Your task to perform on an android device: set an alarm Image 0: 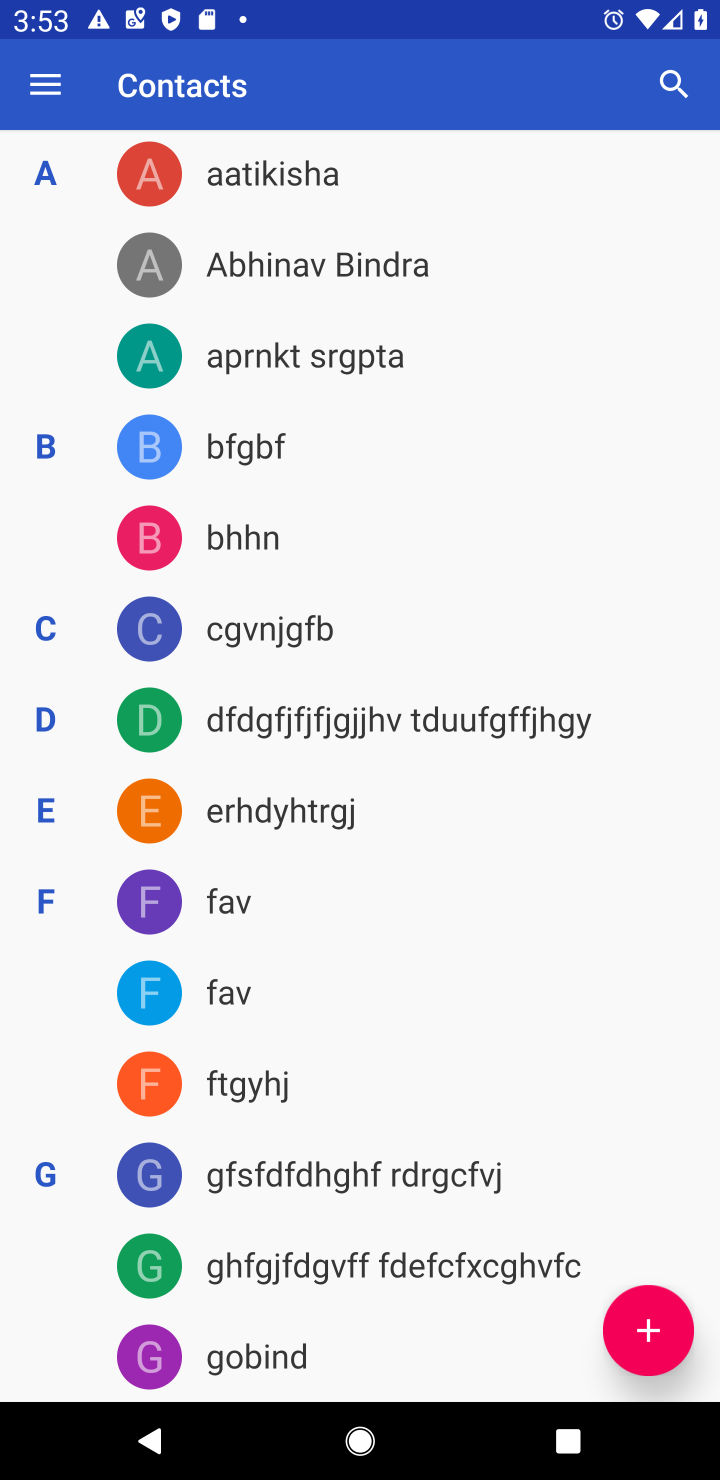
Step 0: press home button
Your task to perform on an android device: set an alarm Image 1: 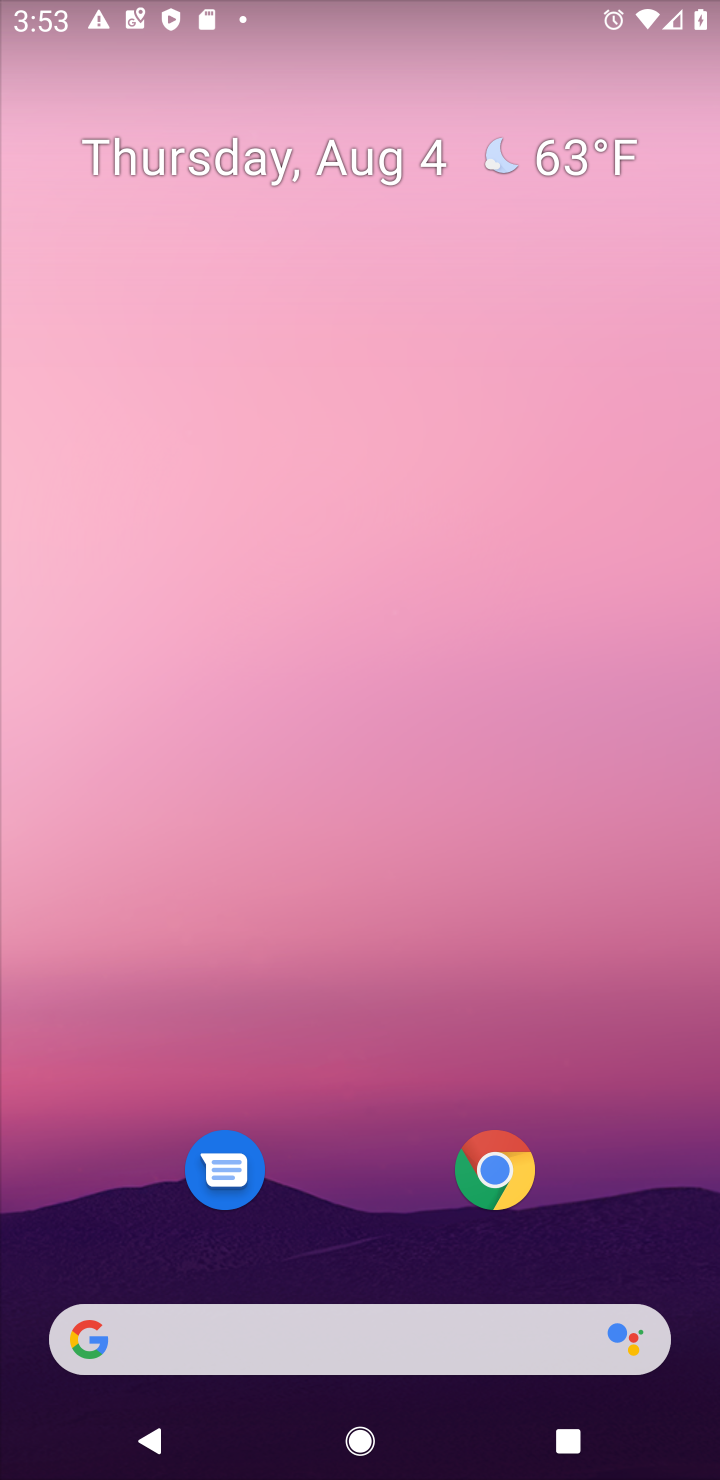
Step 1: drag from (621, 1140) to (566, 426)
Your task to perform on an android device: set an alarm Image 2: 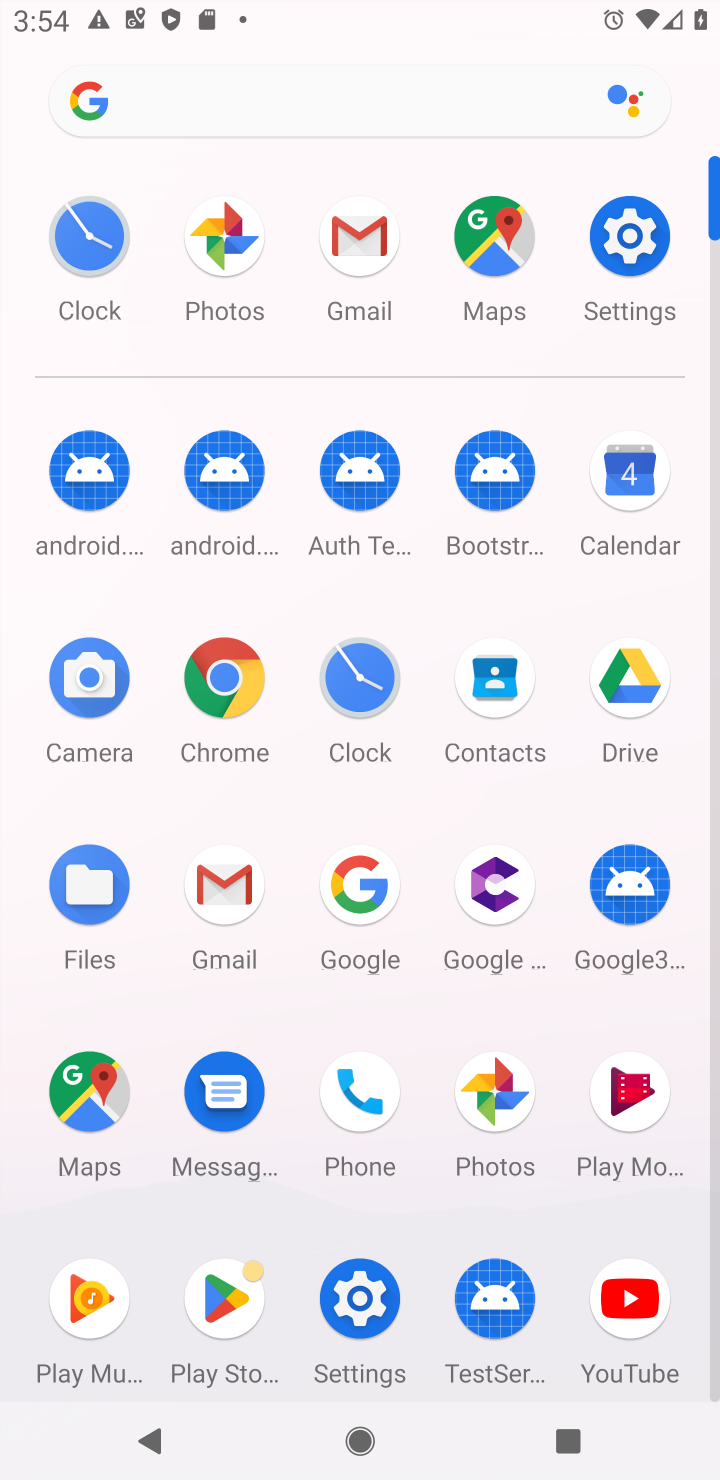
Step 2: click (363, 683)
Your task to perform on an android device: set an alarm Image 3: 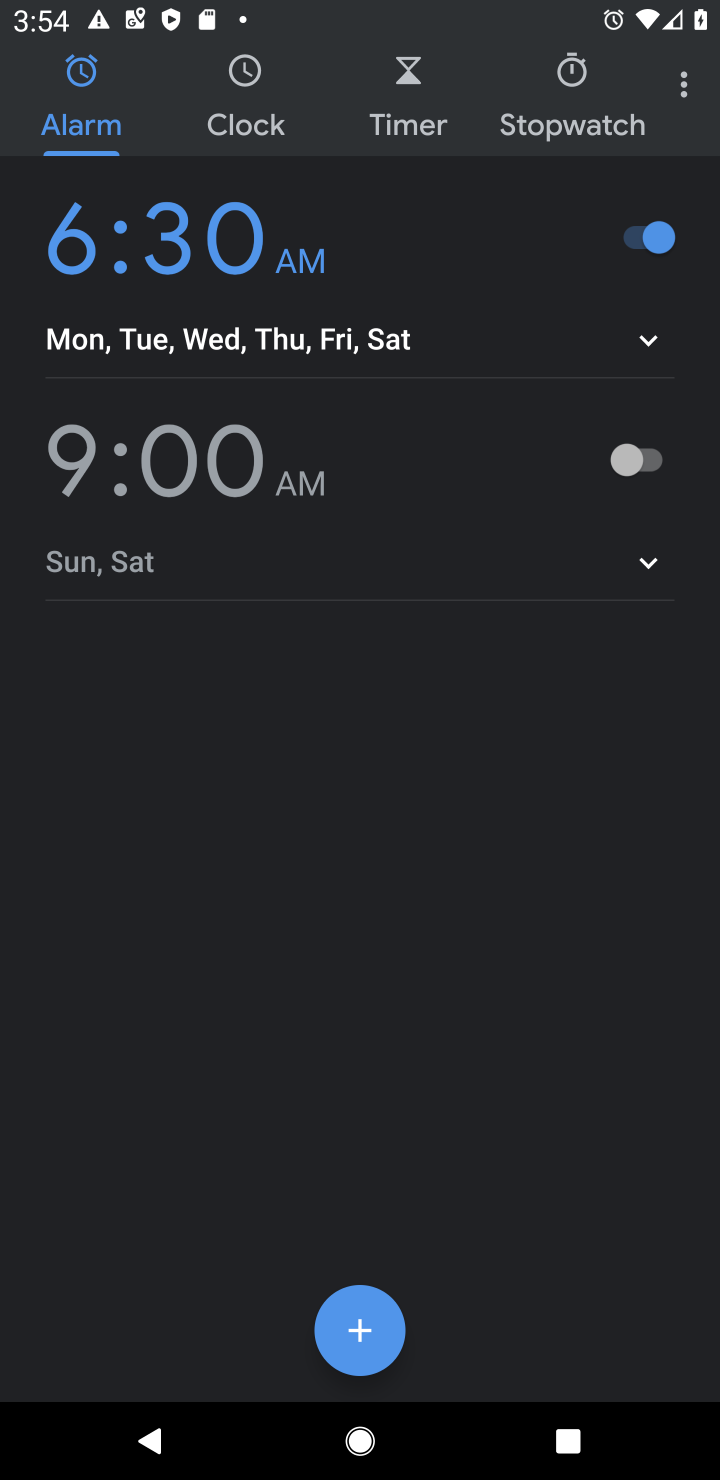
Step 3: click (141, 467)
Your task to perform on an android device: set an alarm Image 4: 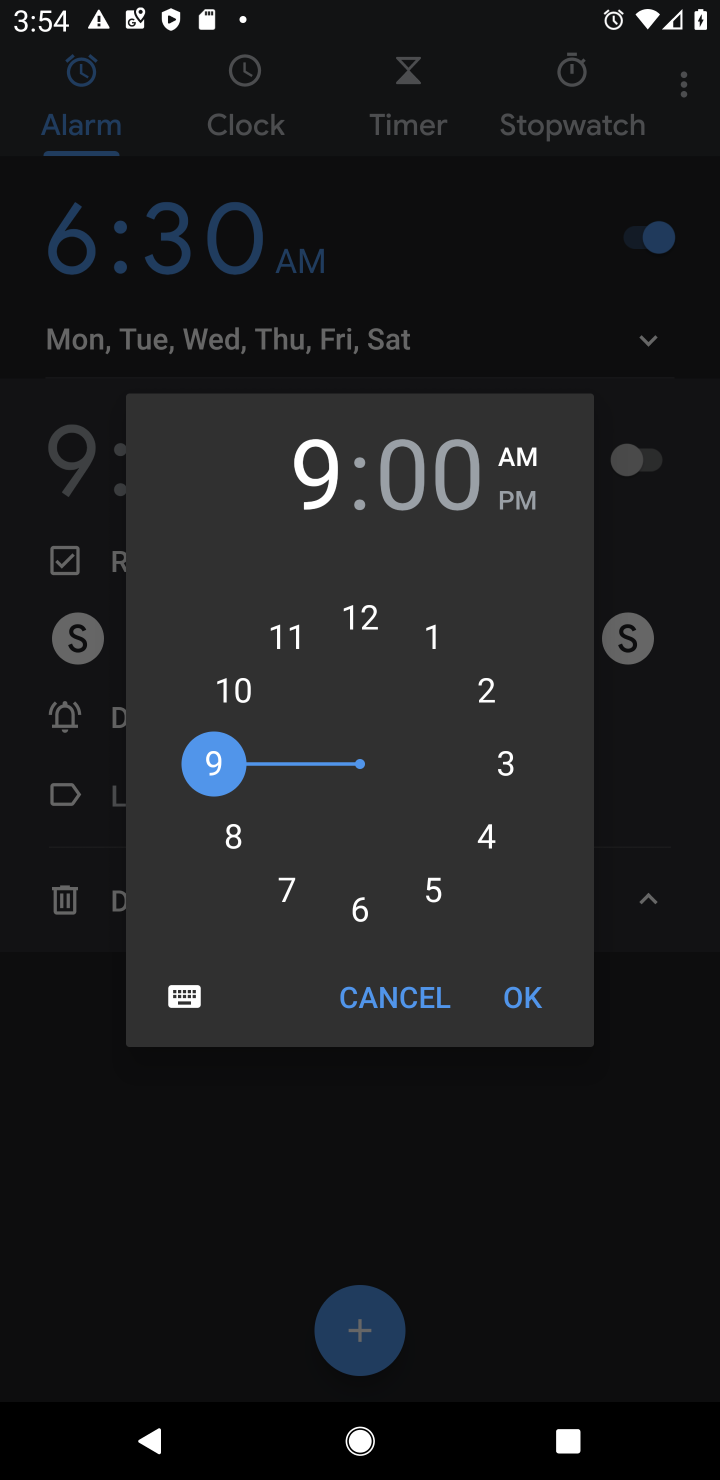
Step 4: click (359, 919)
Your task to perform on an android device: set an alarm Image 5: 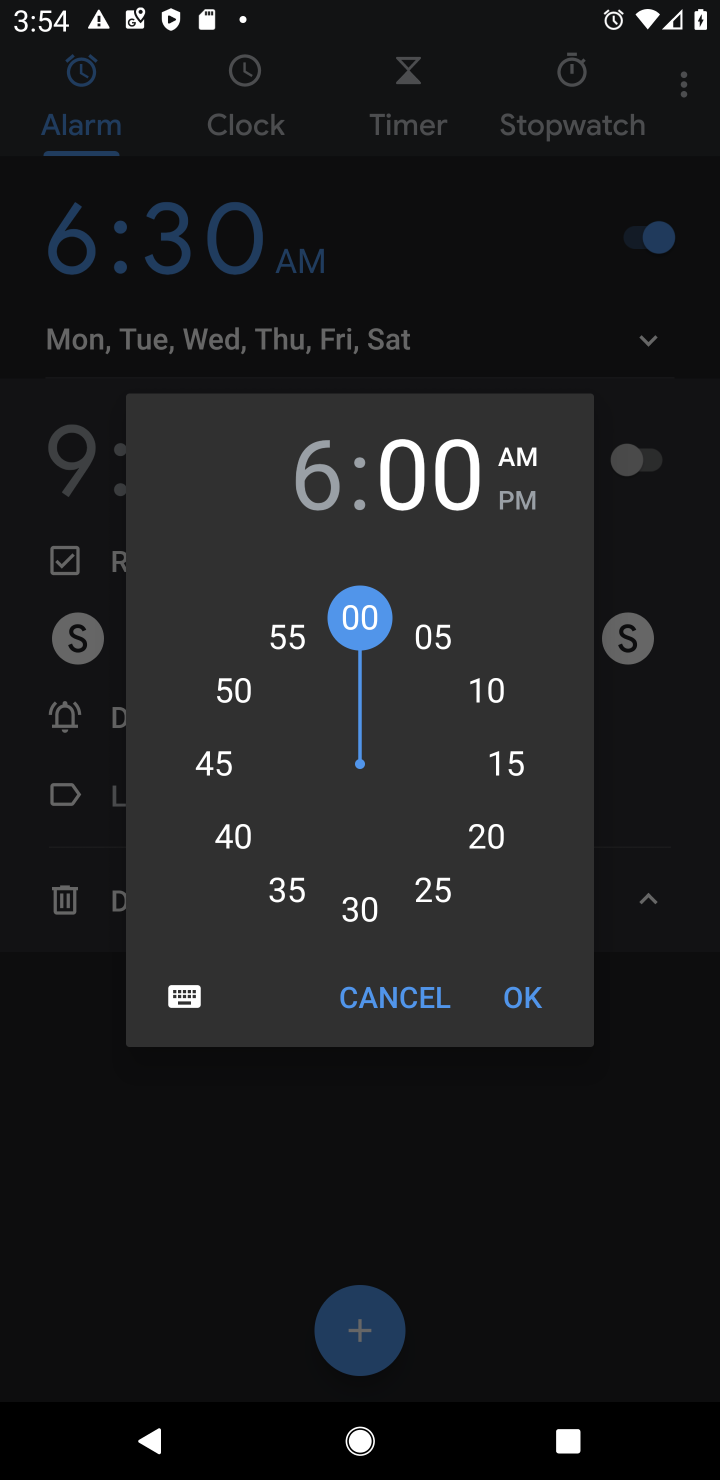
Step 5: click (521, 992)
Your task to perform on an android device: set an alarm Image 6: 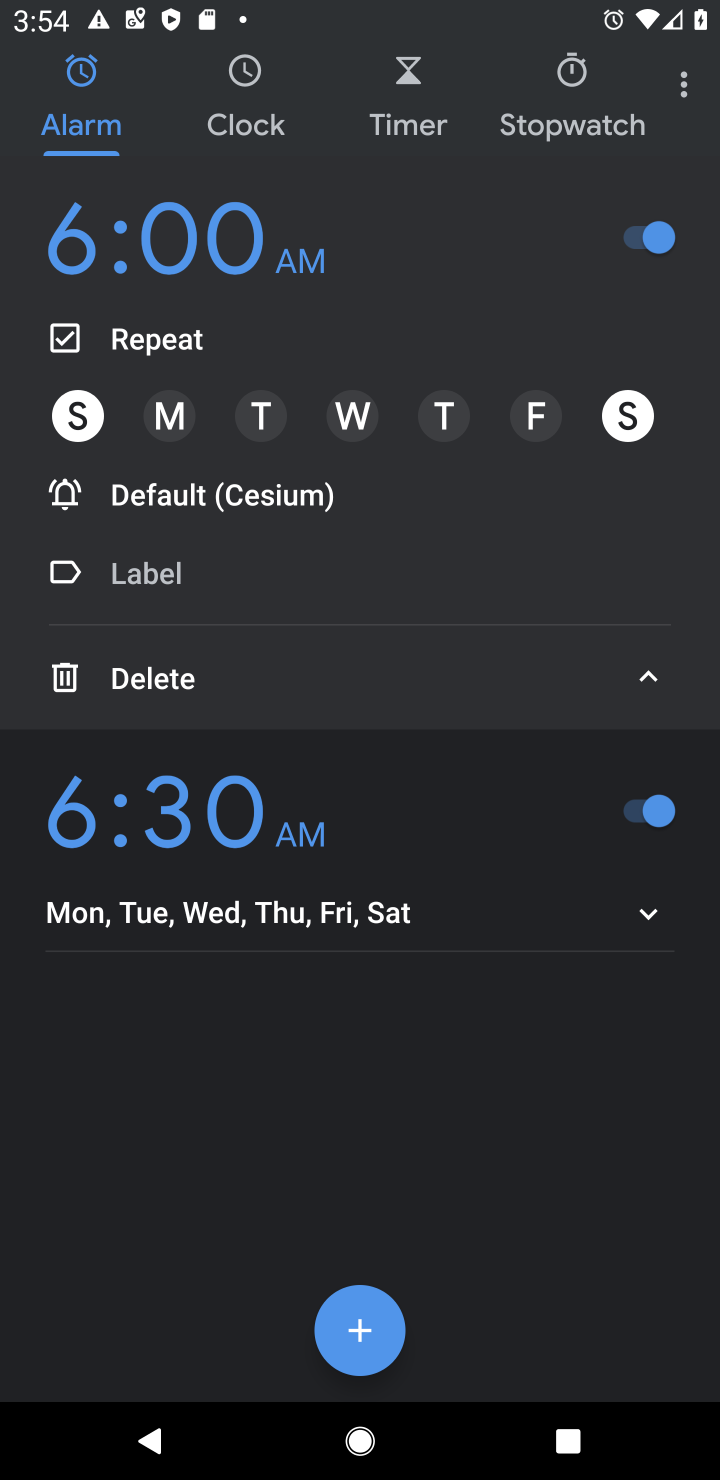
Step 6: click (535, 430)
Your task to perform on an android device: set an alarm Image 7: 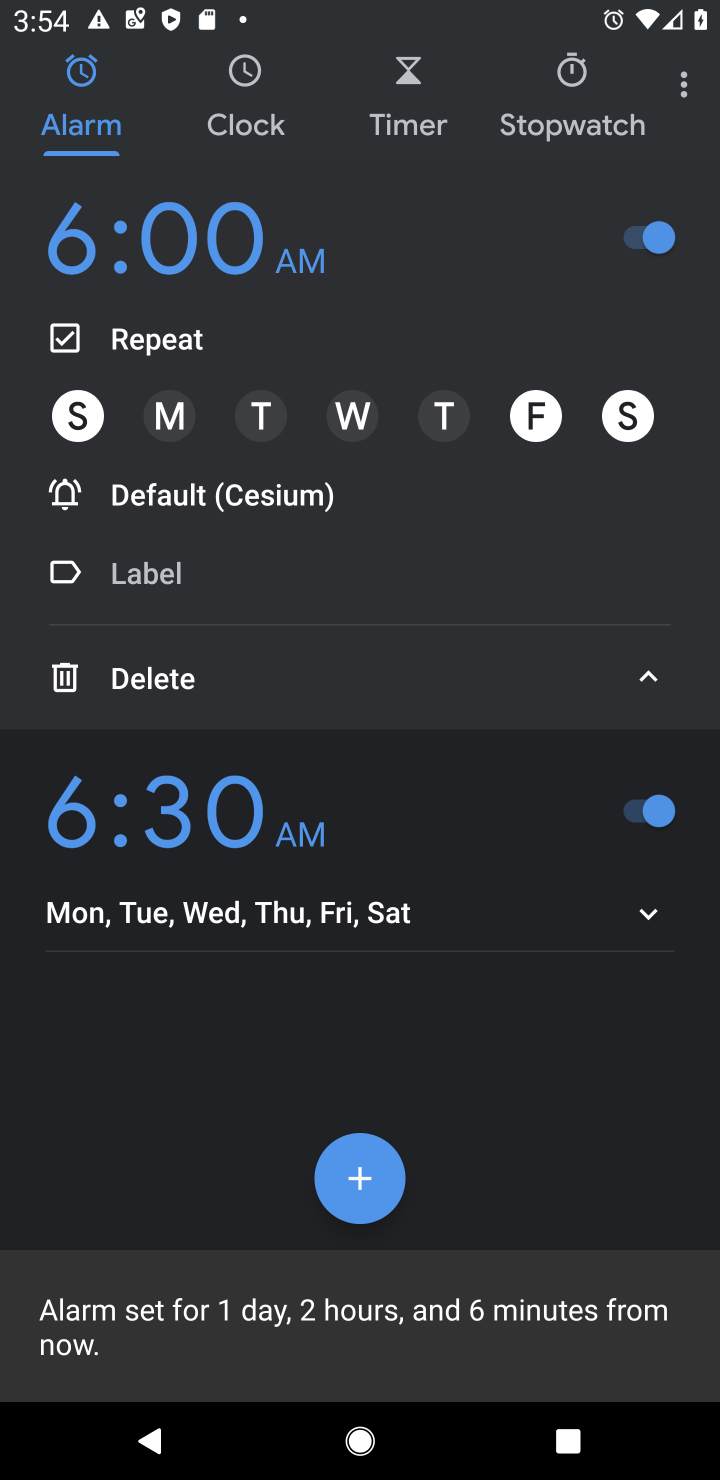
Step 7: click (434, 428)
Your task to perform on an android device: set an alarm Image 8: 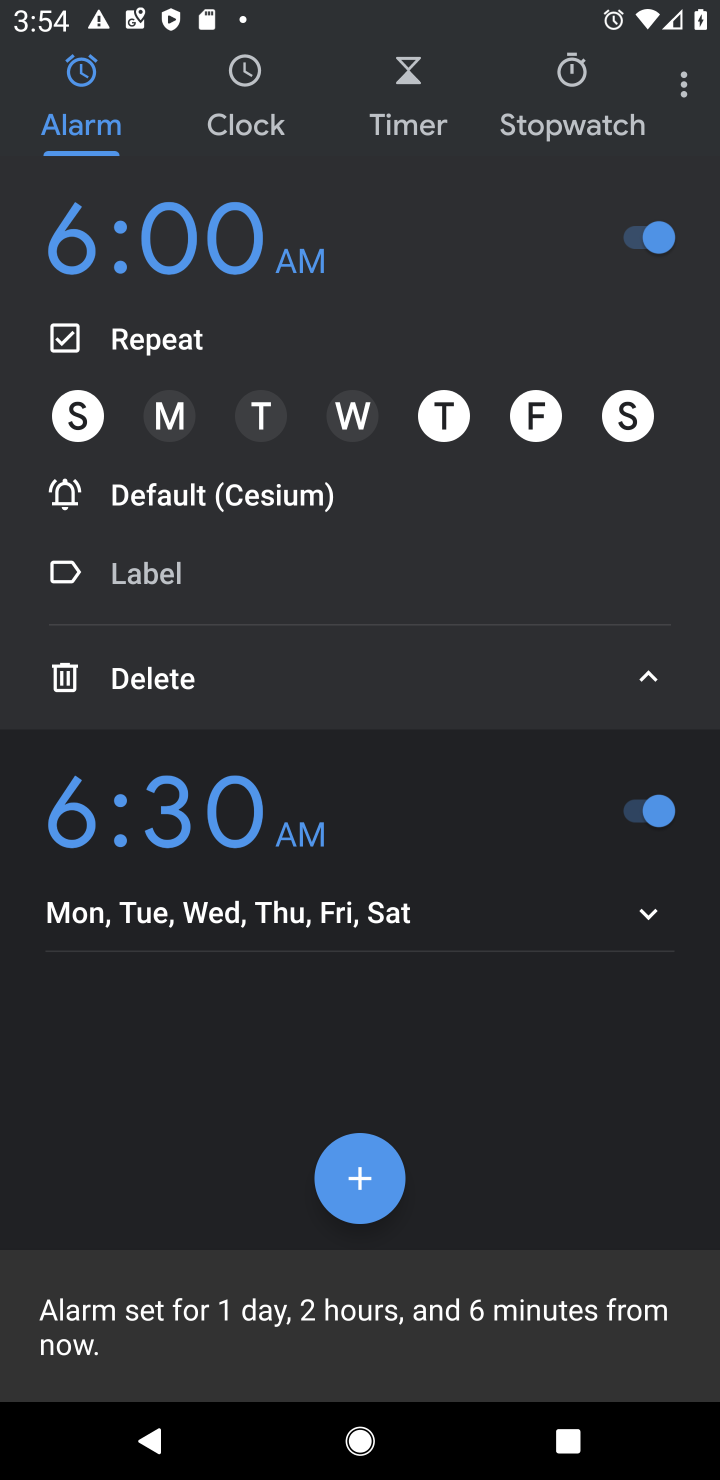
Step 8: click (336, 423)
Your task to perform on an android device: set an alarm Image 9: 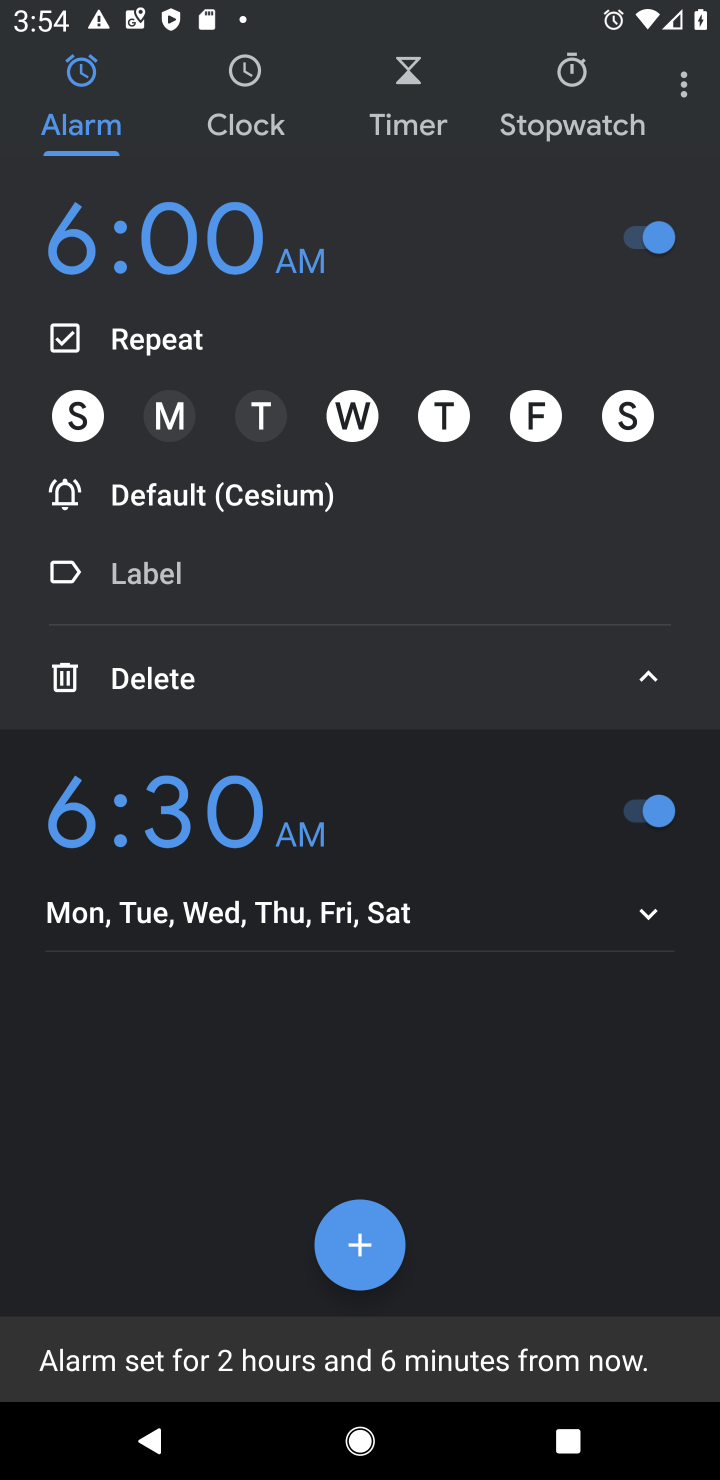
Step 9: click (257, 424)
Your task to perform on an android device: set an alarm Image 10: 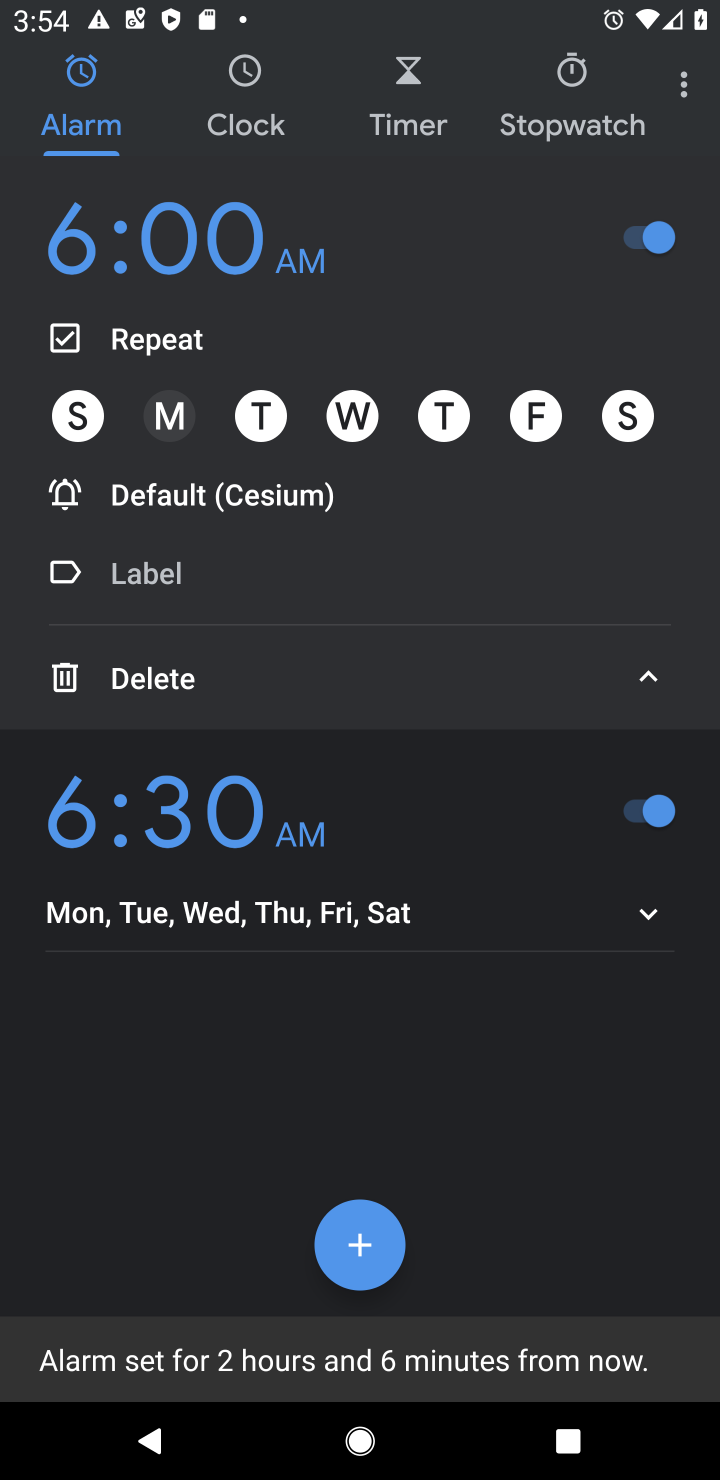
Step 10: click (156, 421)
Your task to perform on an android device: set an alarm Image 11: 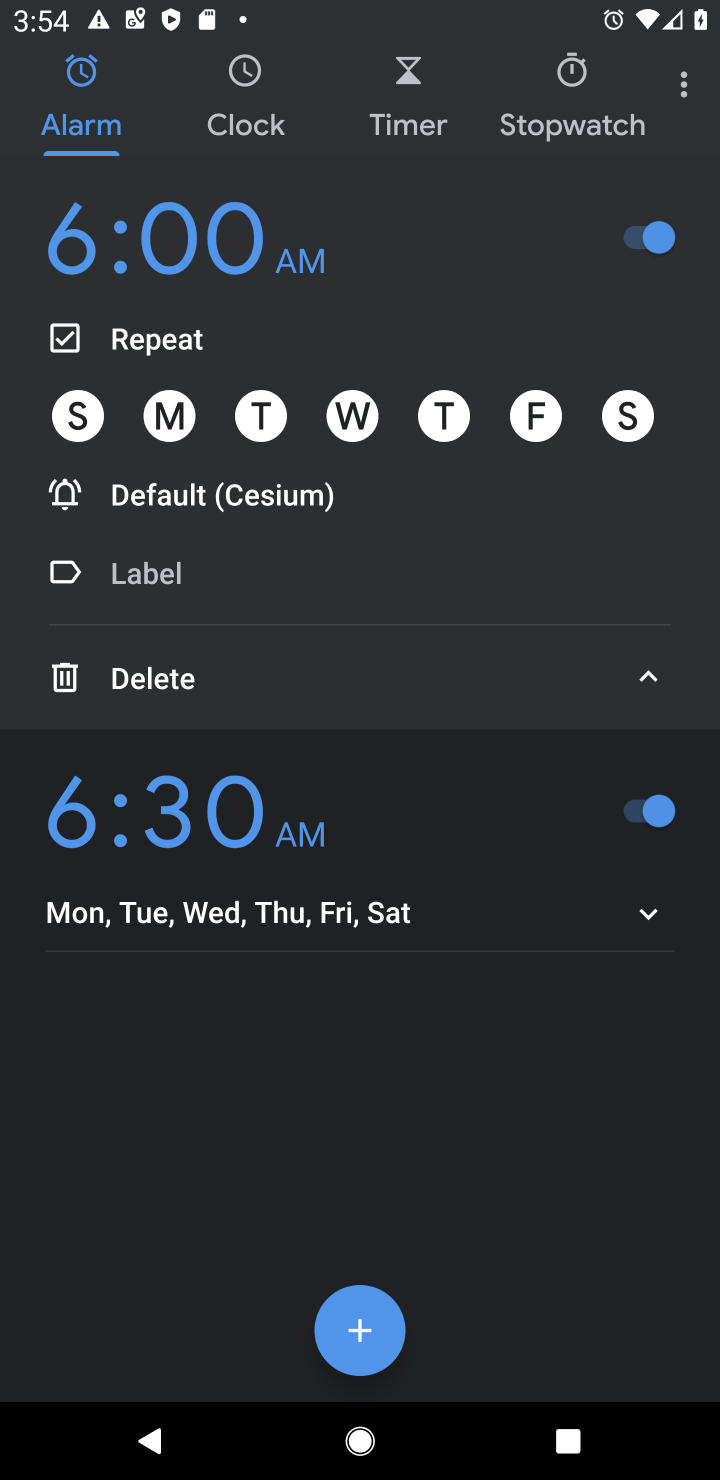
Step 11: click (69, 420)
Your task to perform on an android device: set an alarm Image 12: 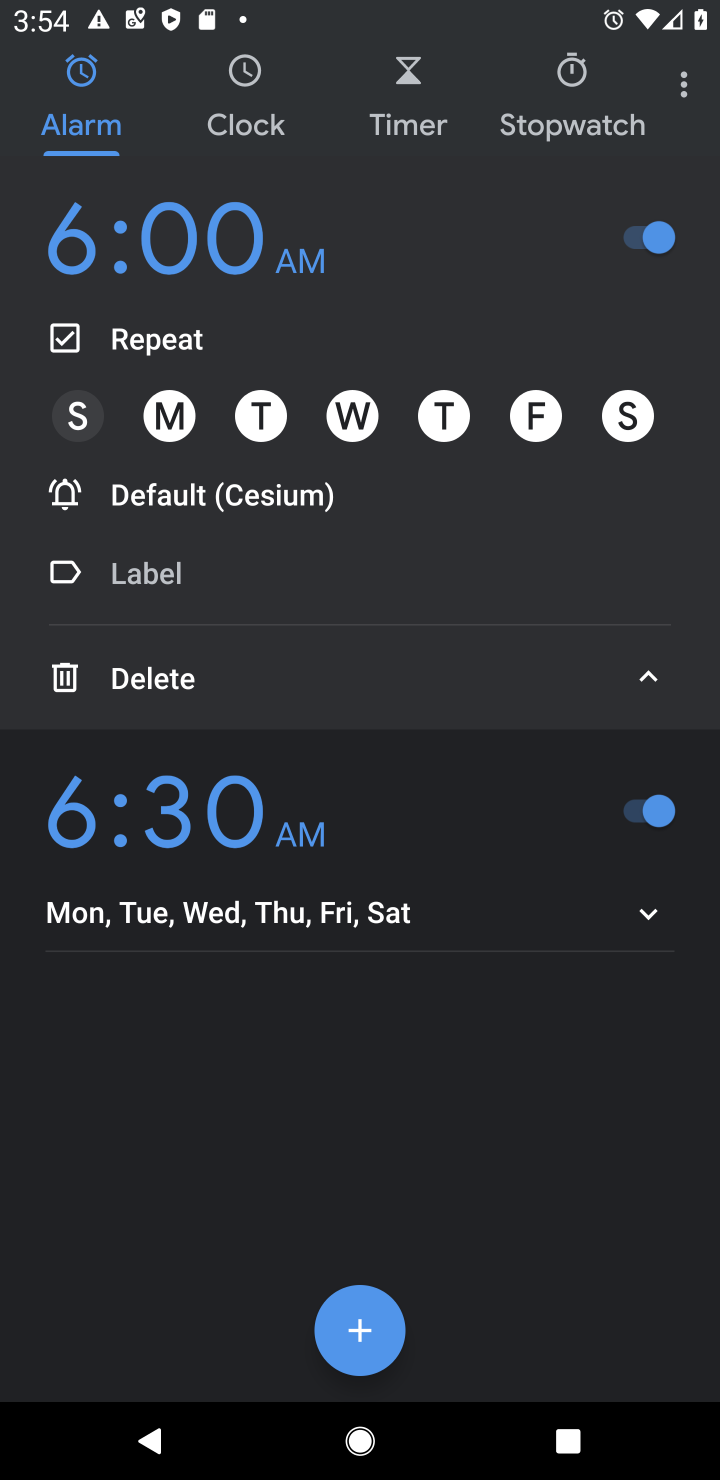
Step 12: click (641, 674)
Your task to perform on an android device: set an alarm Image 13: 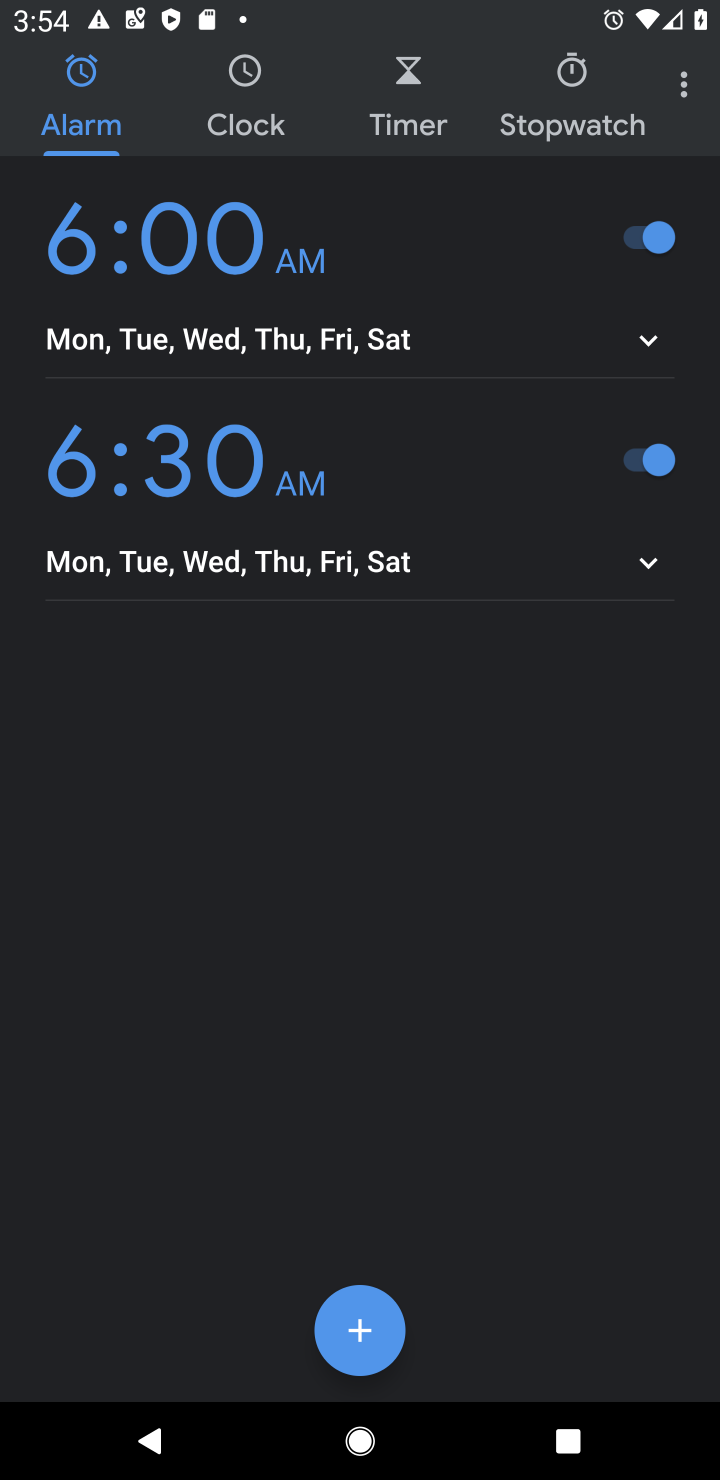
Step 13: task complete